Your task to perform on an android device: open app "YouTube Kids" (install if not already installed) and enter user name: "atmospheric@gmail.com" and password: "raze" Image 0: 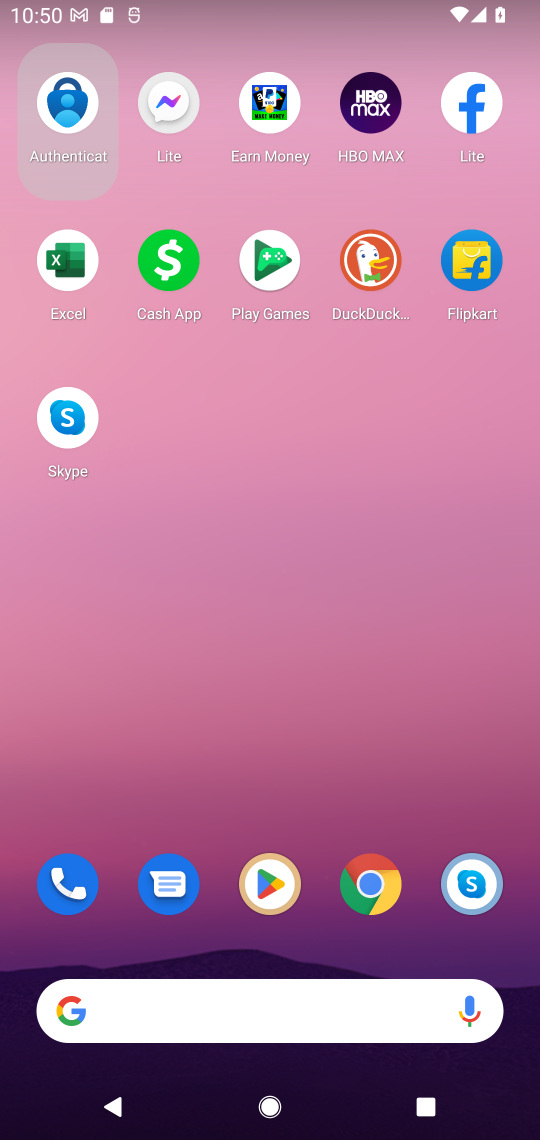
Step 0: press home button
Your task to perform on an android device: open app "YouTube Kids" (install if not already installed) and enter user name: "atmospheric@gmail.com" and password: "raze" Image 1: 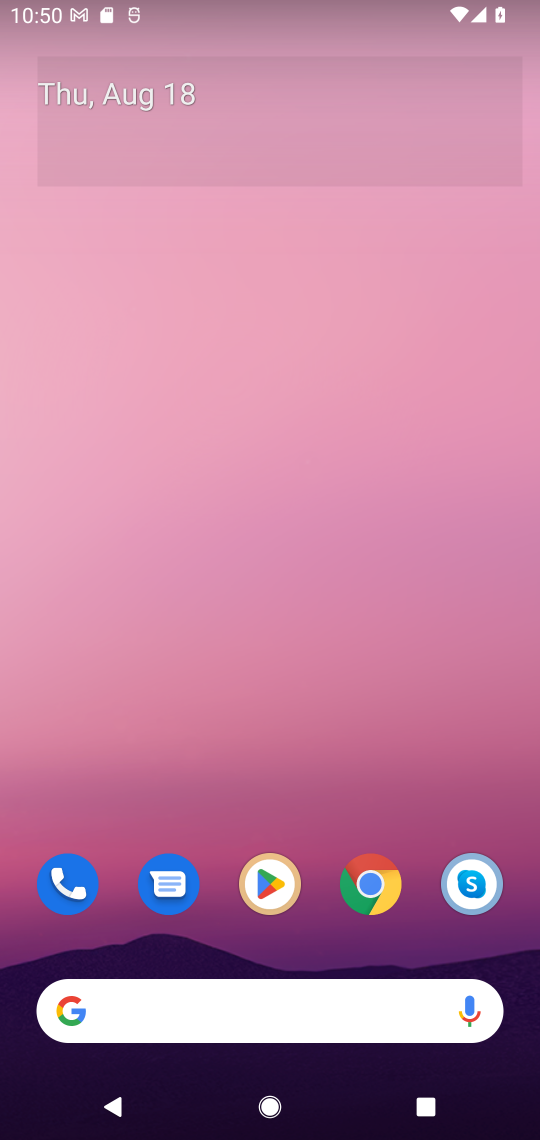
Step 1: drag from (200, 1026) to (425, 147)
Your task to perform on an android device: open app "YouTube Kids" (install if not already installed) and enter user name: "atmospheric@gmail.com" and password: "raze" Image 2: 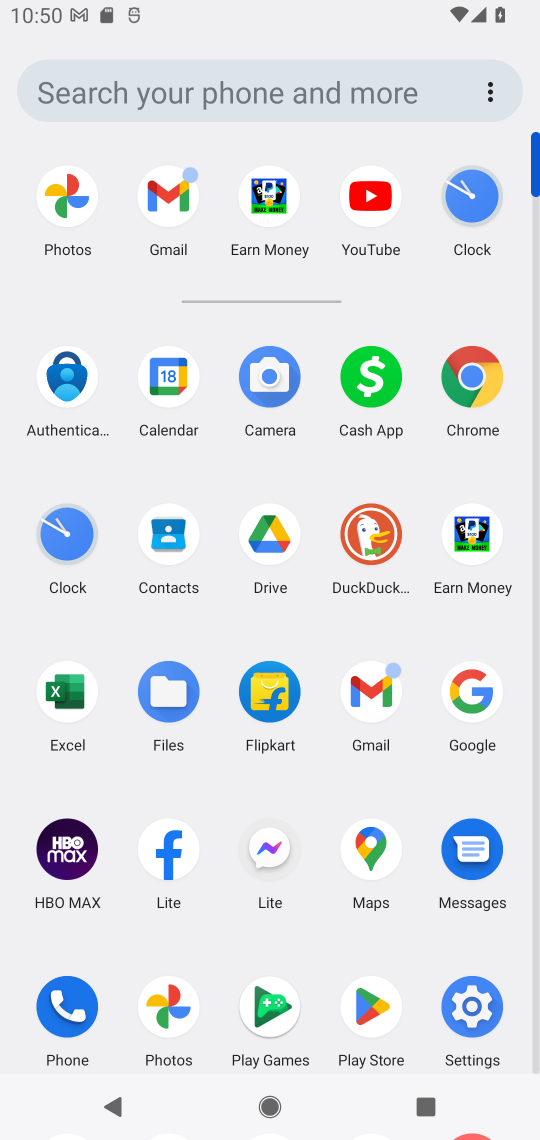
Step 2: click (370, 1006)
Your task to perform on an android device: open app "YouTube Kids" (install if not already installed) and enter user name: "atmospheric@gmail.com" and password: "raze" Image 3: 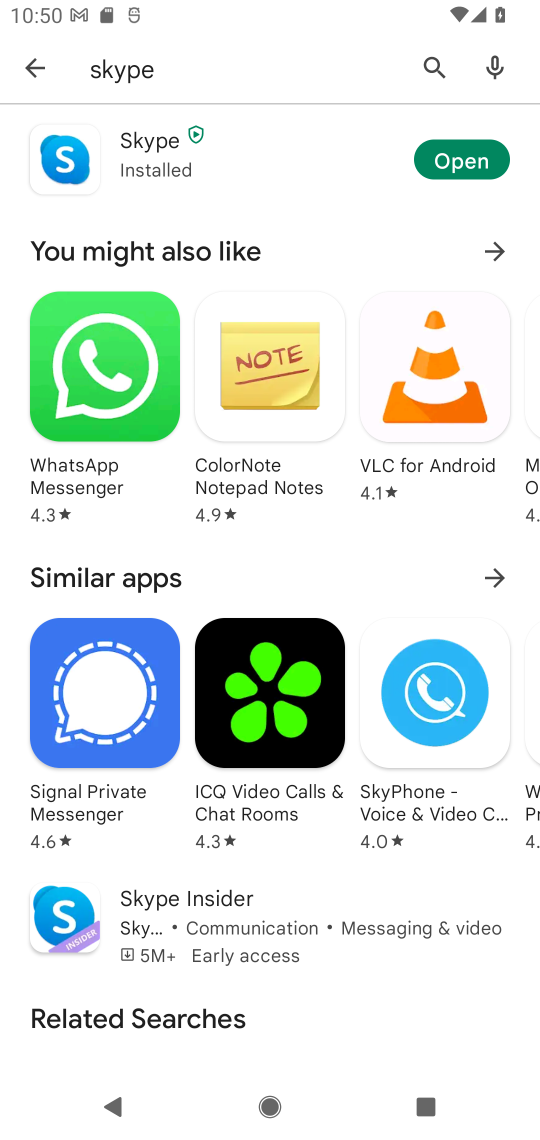
Step 3: press back button
Your task to perform on an android device: open app "YouTube Kids" (install if not already installed) and enter user name: "atmospheric@gmail.com" and password: "raze" Image 4: 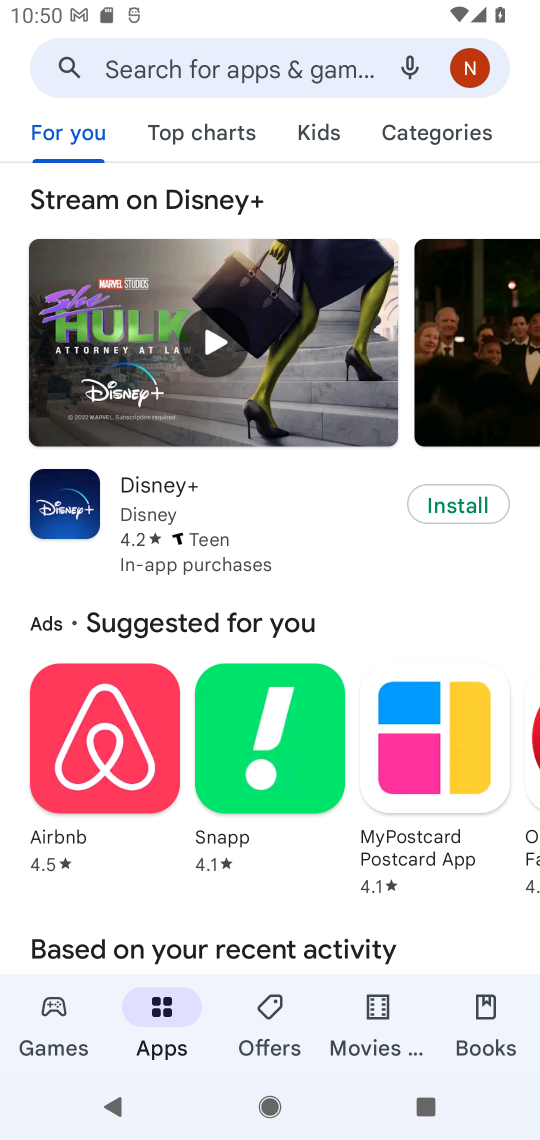
Step 4: click (209, 62)
Your task to perform on an android device: open app "YouTube Kids" (install if not already installed) and enter user name: "atmospheric@gmail.com" and password: "raze" Image 5: 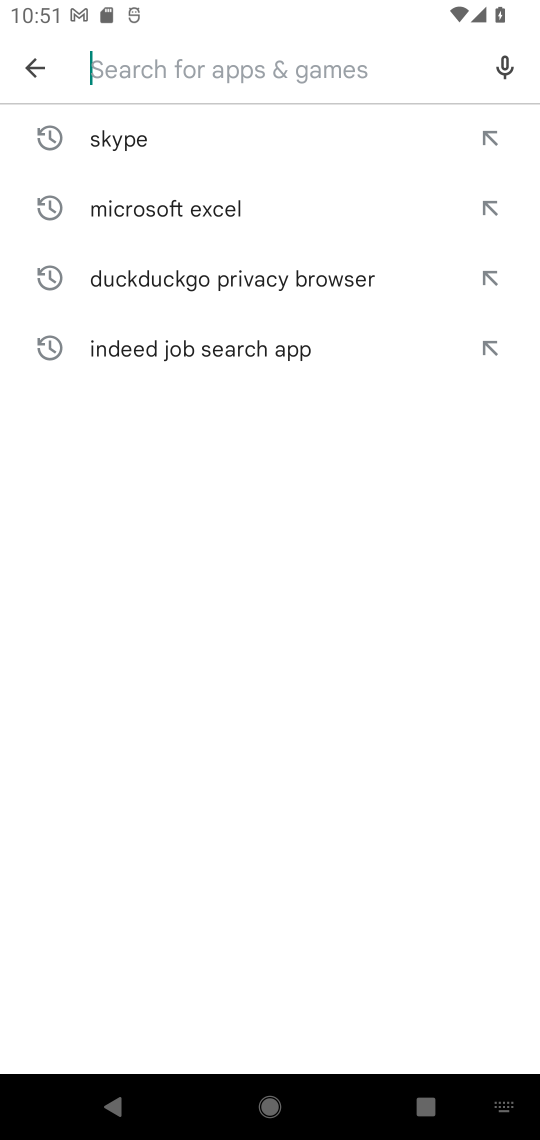
Step 5: type "YouTube Kids"
Your task to perform on an android device: open app "YouTube Kids" (install if not already installed) and enter user name: "atmospheric@gmail.com" and password: "raze" Image 6: 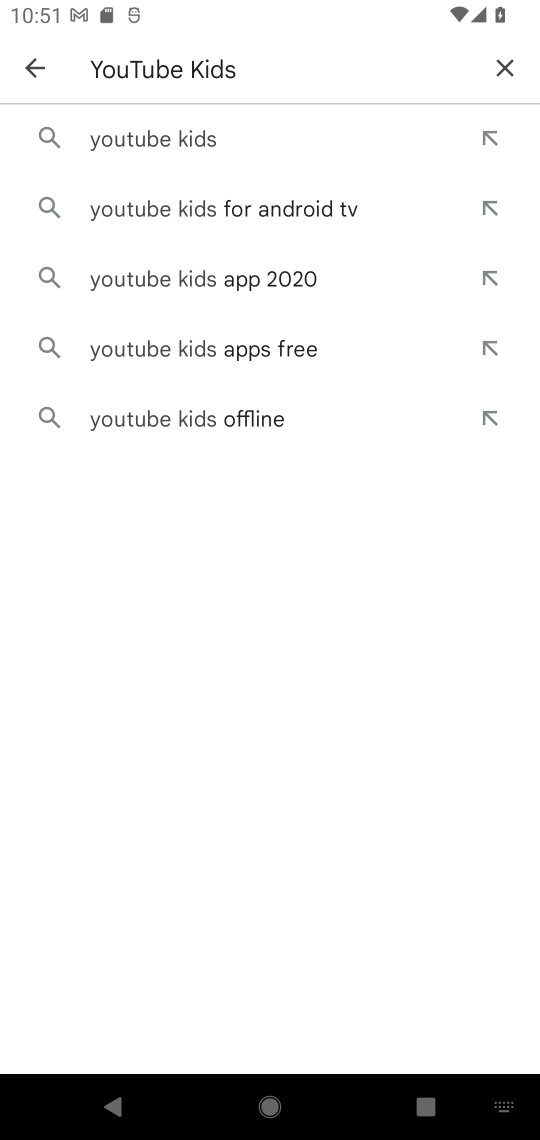
Step 6: click (215, 140)
Your task to perform on an android device: open app "YouTube Kids" (install if not already installed) and enter user name: "atmospheric@gmail.com" and password: "raze" Image 7: 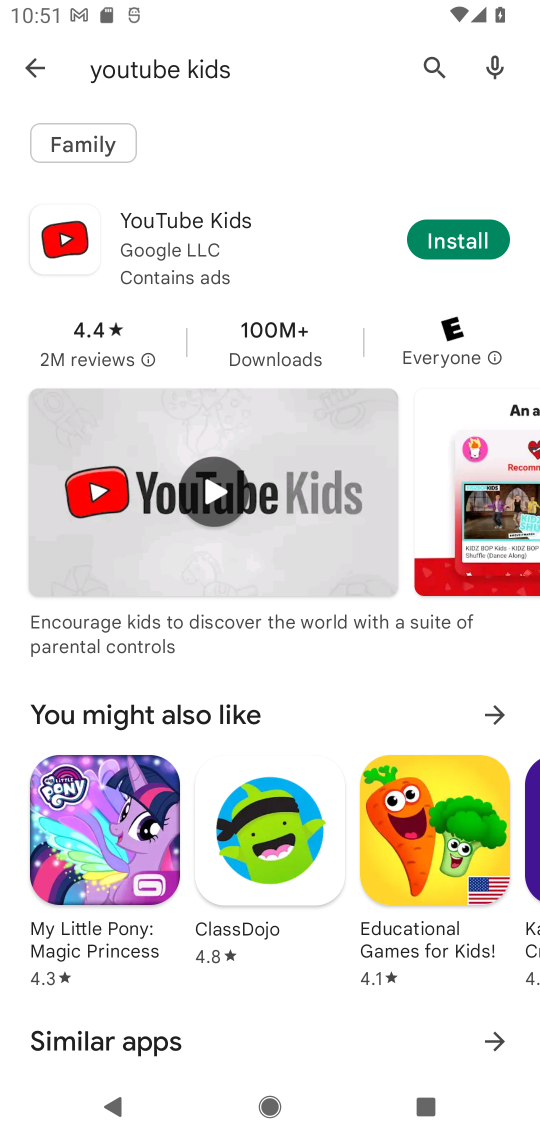
Step 7: click (469, 238)
Your task to perform on an android device: open app "YouTube Kids" (install if not already installed) and enter user name: "atmospheric@gmail.com" and password: "raze" Image 8: 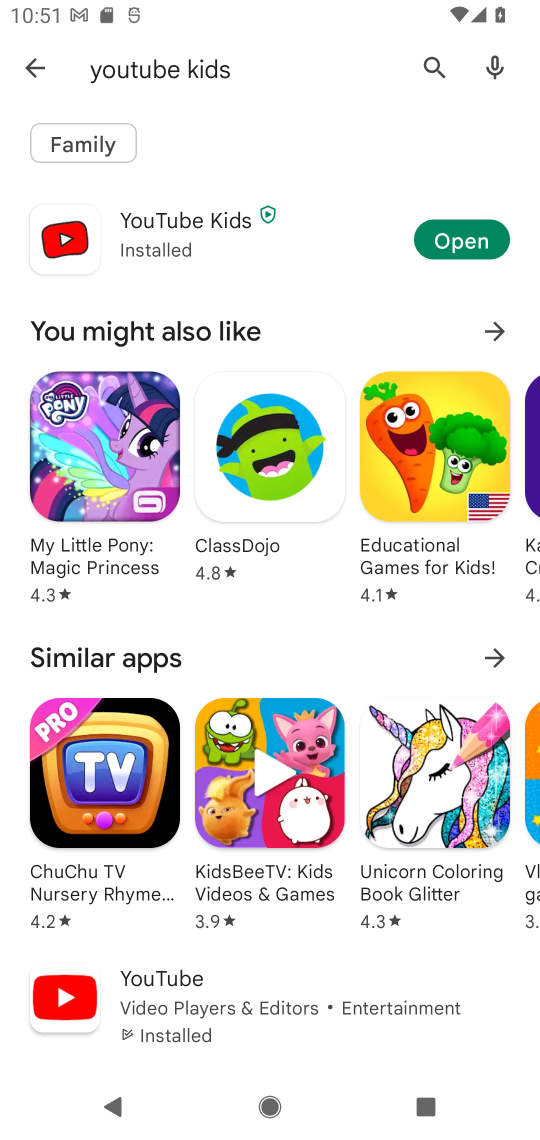
Step 8: click (459, 243)
Your task to perform on an android device: open app "YouTube Kids" (install if not already installed) and enter user name: "atmospheric@gmail.com" and password: "raze" Image 9: 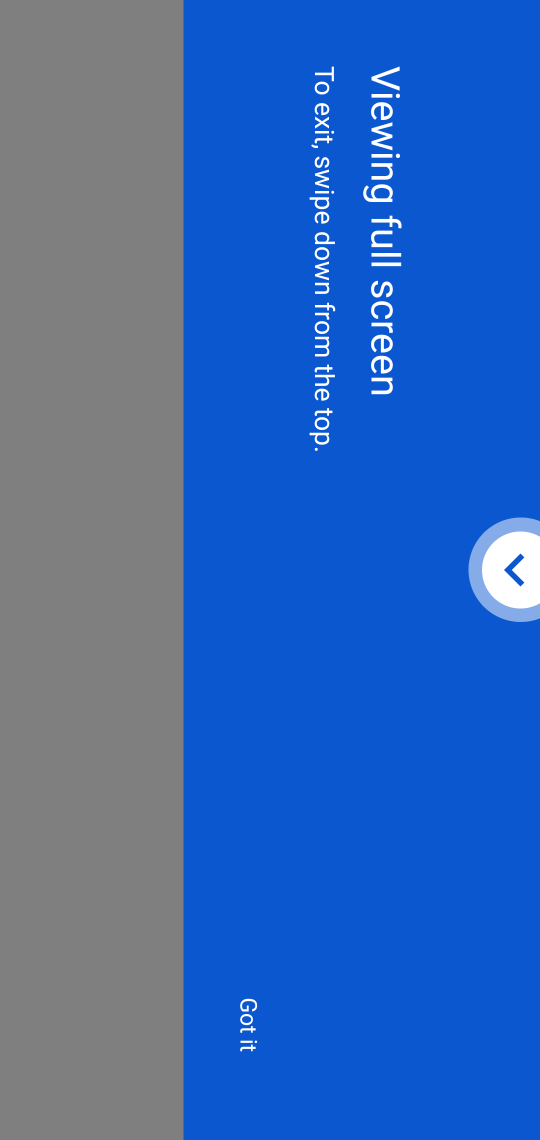
Step 9: click (255, 1025)
Your task to perform on an android device: open app "YouTube Kids" (install if not already installed) and enter user name: "atmospheric@gmail.com" and password: "raze" Image 10: 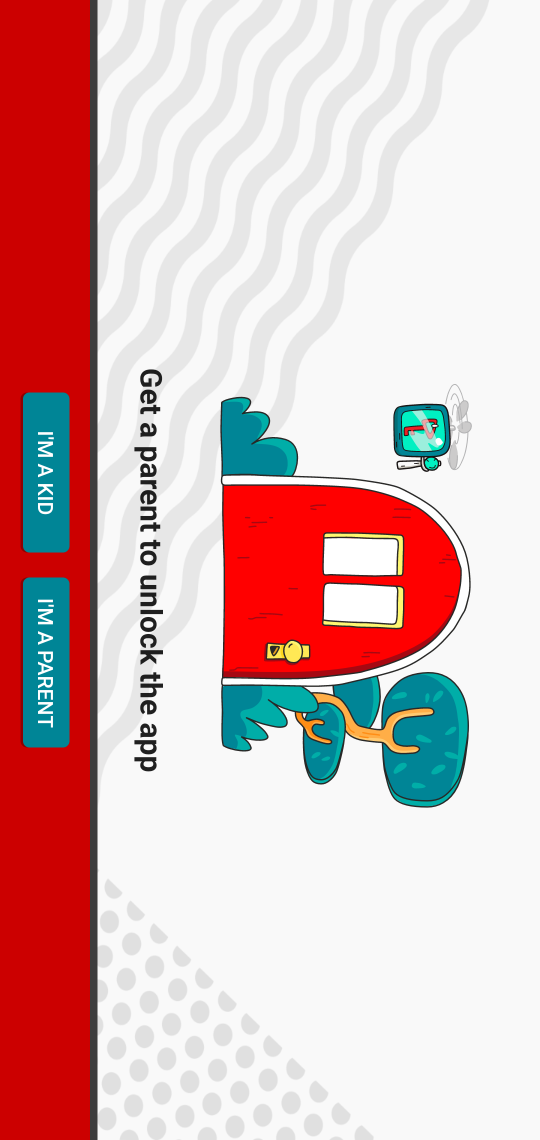
Step 10: click (44, 495)
Your task to perform on an android device: open app "YouTube Kids" (install if not already installed) and enter user name: "atmospheric@gmail.com" and password: "raze" Image 11: 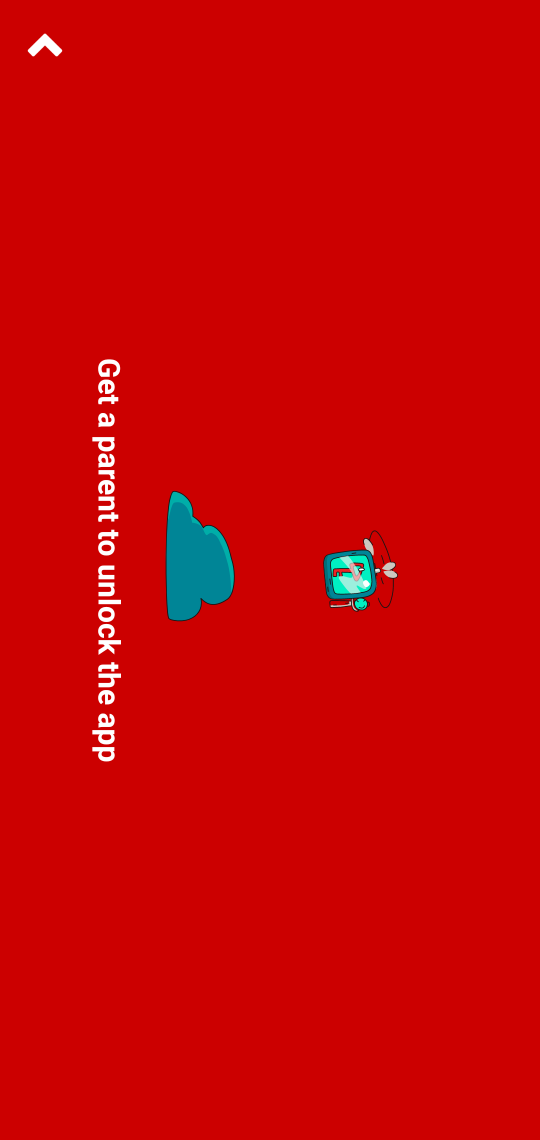
Step 11: click (191, 578)
Your task to perform on an android device: open app "YouTube Kids" (install if not already installed) and enter user name: "atmospheric@gmail.com" and password: "raze" Image 12: 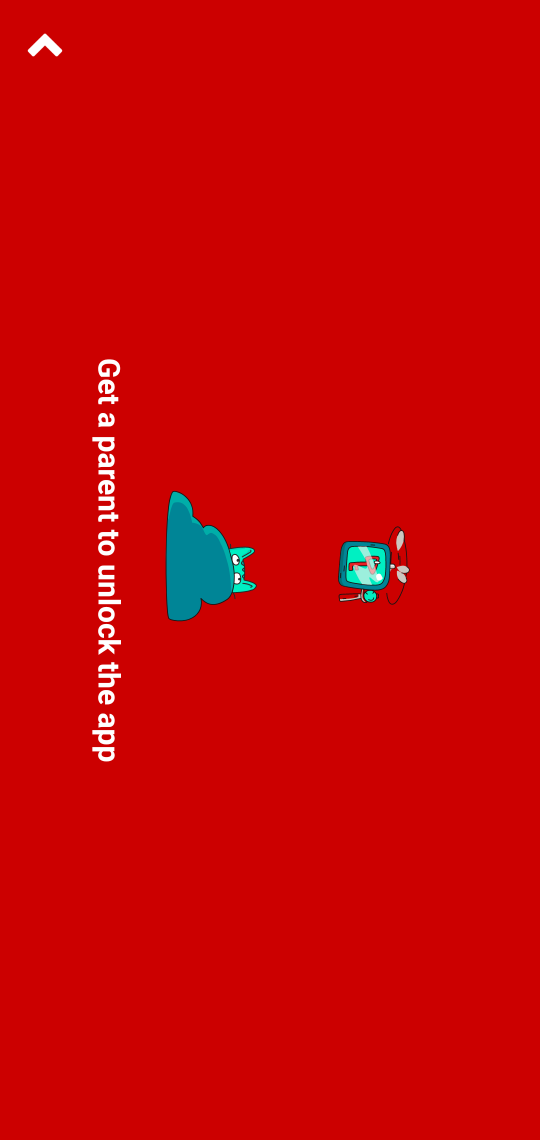
Step 12: click (110, 567)
Your task to perform on an android device: open app "YouTube Kids" (install if not already installed) and enter user name: "atmospheric@gmail.com" and password: "raze" Image 13: 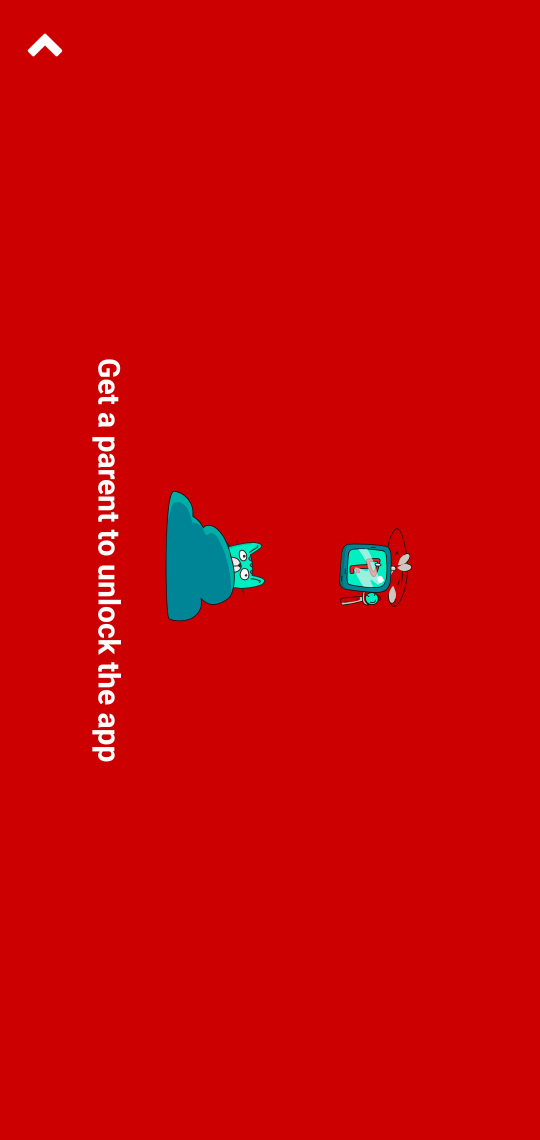
Step 13: click (44, 47)
Your task to perform on an android device: open app "YouTube Kids" (install if not already installed) and enter user name: "atmospheric@gmail.com" and password: "raze" Image 14: 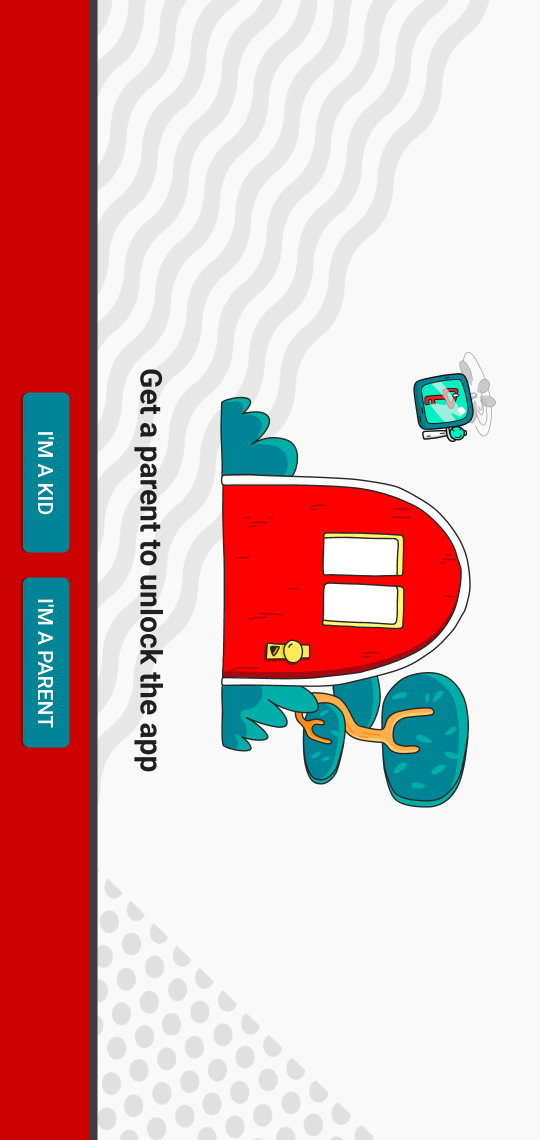
Step 14: click (68, 631)
Your task to perform on an android device: open app "YouTube Kids" (install if not already installed) and enter user name: "atmospheric@gmail.com" and password: "raze" Image 15: 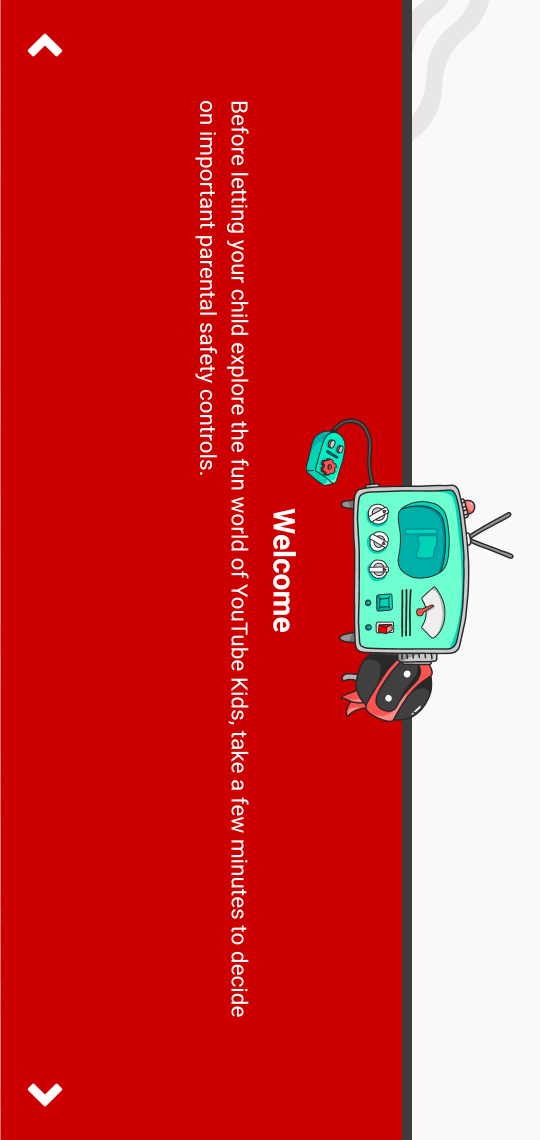
Step 15: click (51, 1095)
Your task to perform on an android device: open app "YouTube Kids" (install if not already installed) and enter user name: "atmospheric@gmail.com" and password: "raze" Image 16: 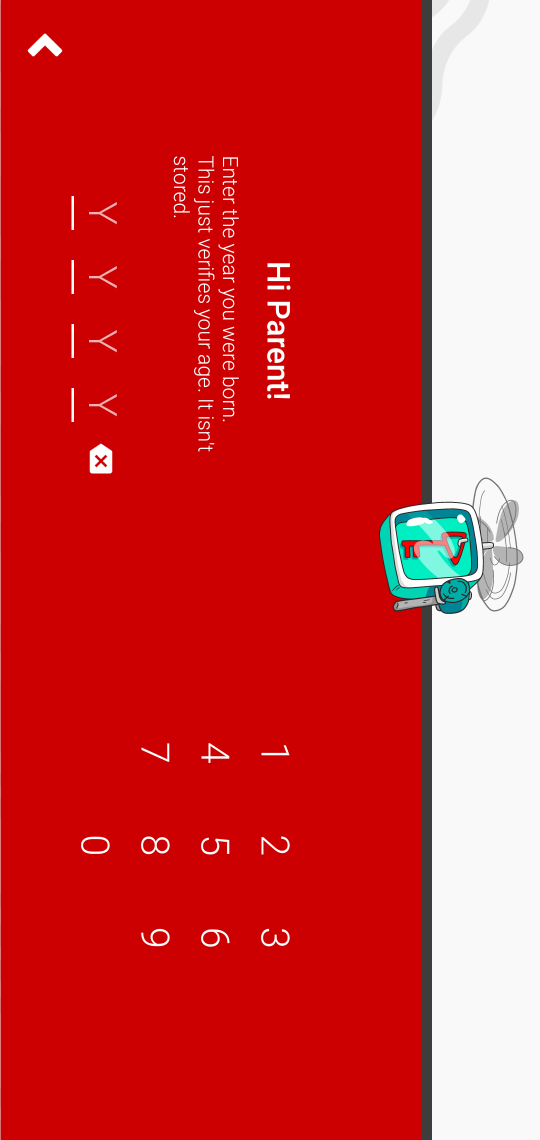
Step 16: task complete